Your task to perform on an android device: check the backup settings in the google photos Image 0: 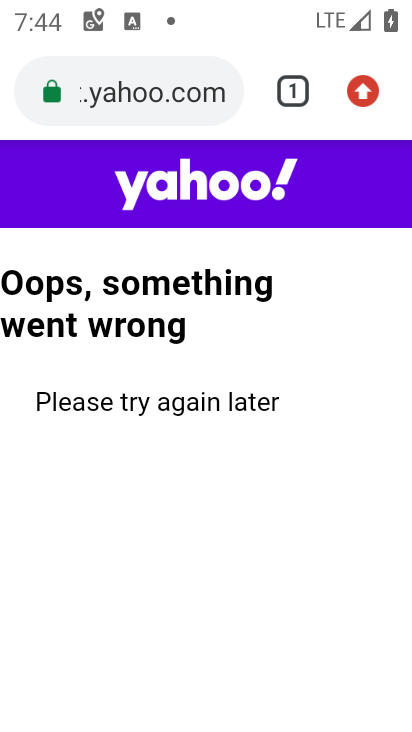
Step 0: press home button
Your task to perform on an android device: check the backup settings in the google photos Image 1: 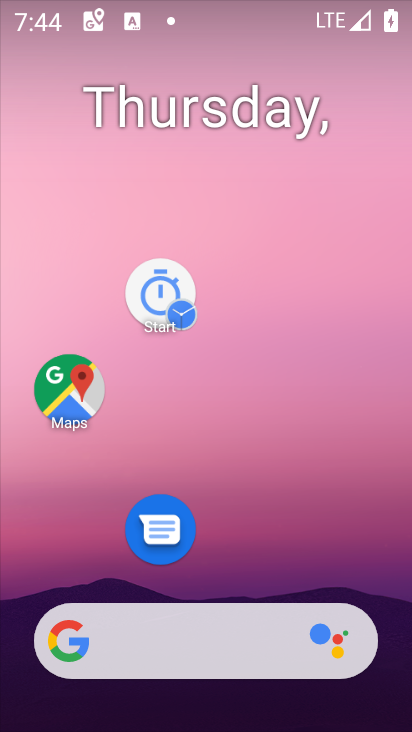
Step 1: drag from (284, 516) to (134, 213)
Your task to perform on an android device: check the backup settings in the google photos Image 2: 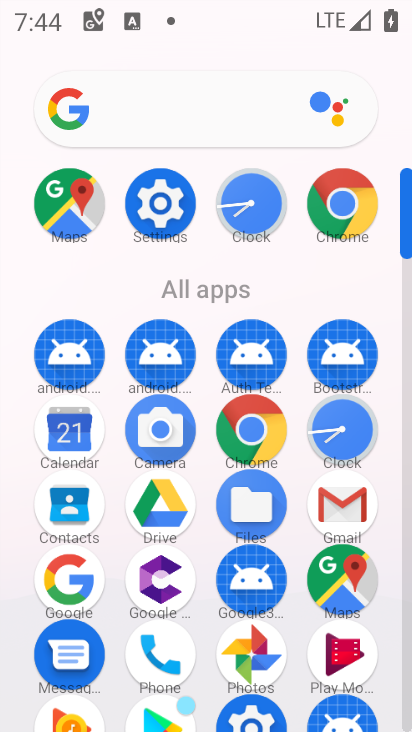
Step 2: click (258, 656)
Your task to perform on an android device: check the backup settings in the google photos Image 3: 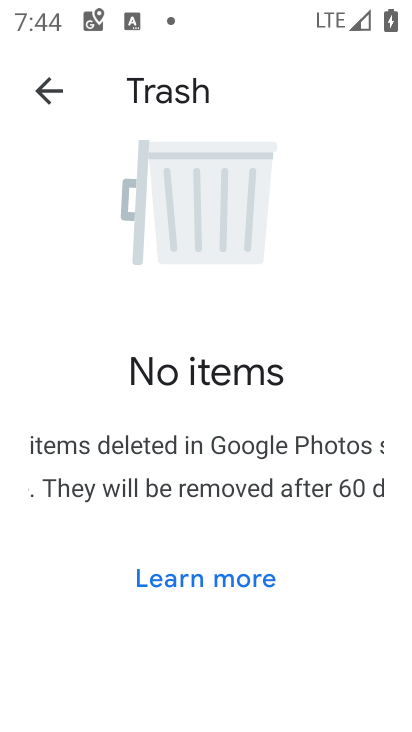
Step 3: click (37, 97)
Your task to perform on an android device: check the backup settings in the google photos Image 4: 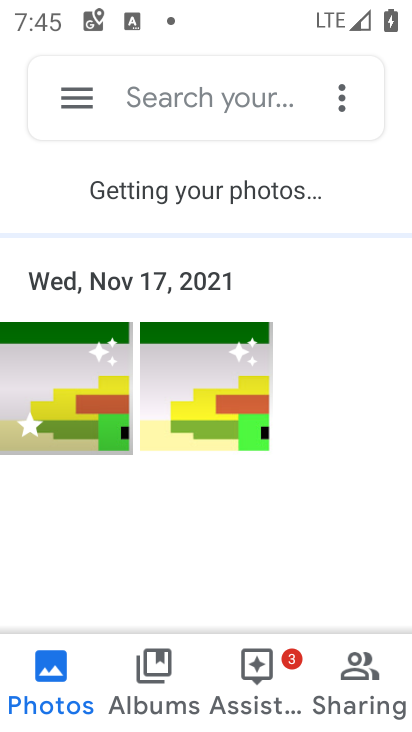
Step 4: click (71, 80)
Your task to perform on an android device: check the backup settings in the google photos Image 5: 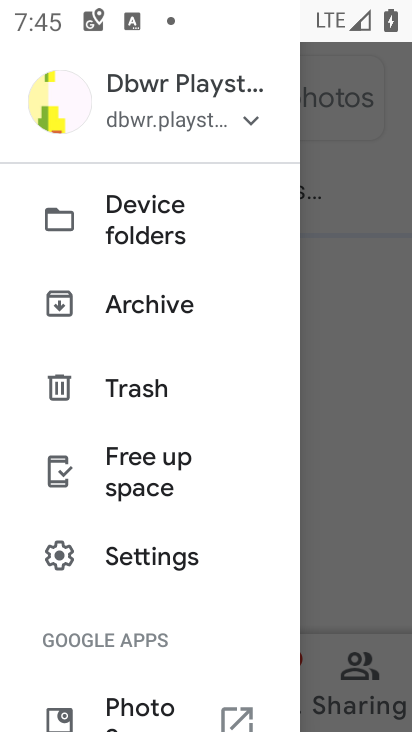
Step 5: click (163, 557)
Your task to perform on an android device: check the backup settings in the google photos Image 6: 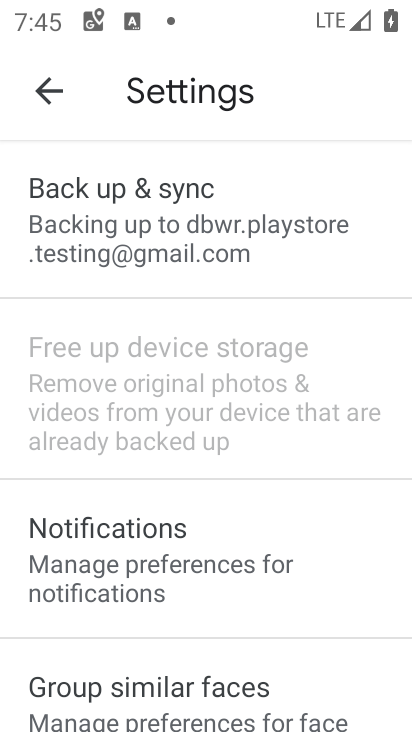
Step 6: click (180, 238)
Your task to perform on an android device: check the backup settings in the google photos Image 7: 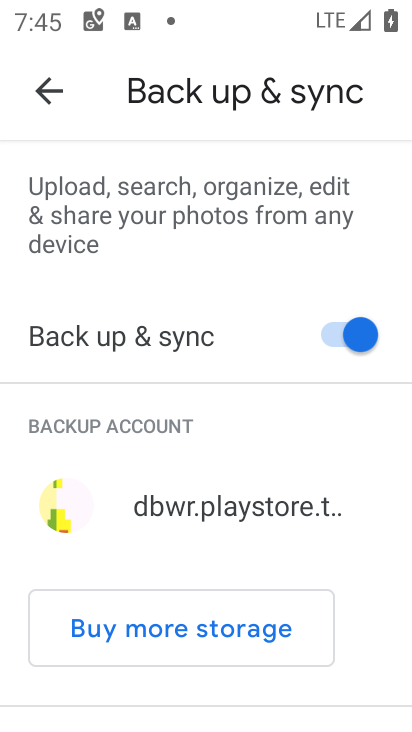
Step 7: task complete